Your task to perform on an android device: Open calendar and show me the second week of next month Image 0: 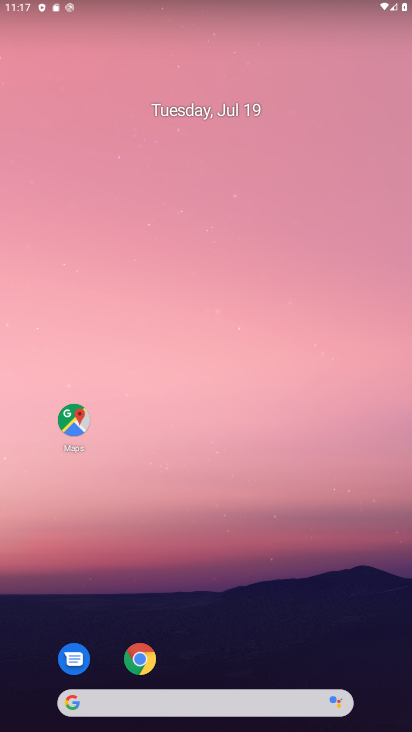
Step 0: press home button
Your task to perform on an android device: Open calendar and show me the second week of next month Image 1: 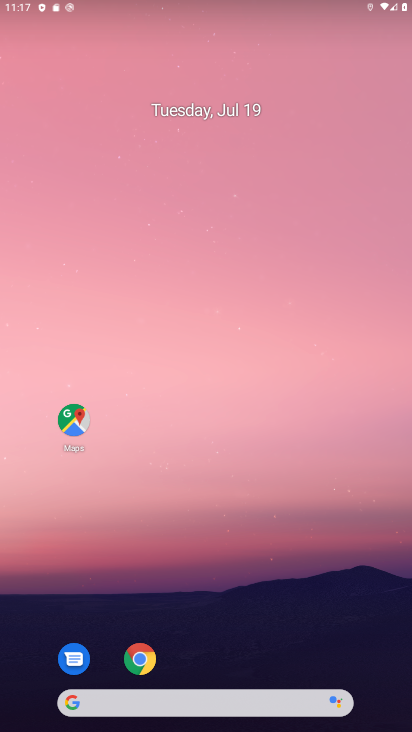
Step 1: press home button
Your task to perform on an android device: Open calendar and show me the second week of next month Image 2: 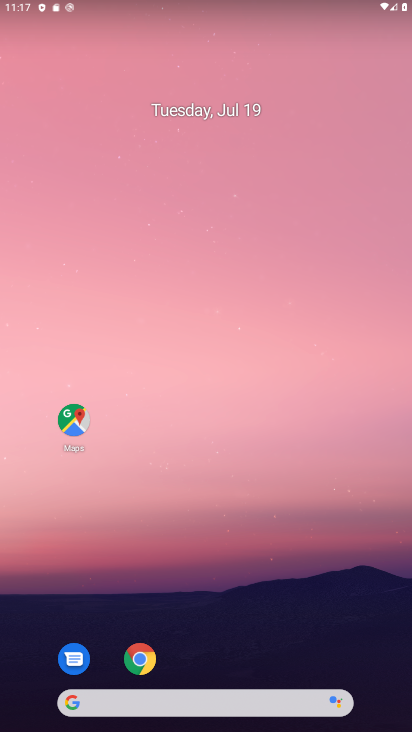
Step 2: drag from (209, 676) to (210, 13)
Your task to perform on an android device: Open calendar and show me the second week of next month Image 3: 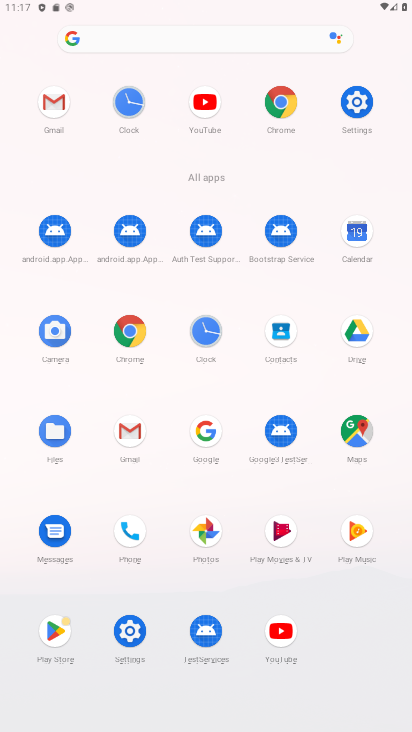
Step 3: click (357, 229)
Your task to perform on an android device: Open calendar and show me the second week of next month Image 4: 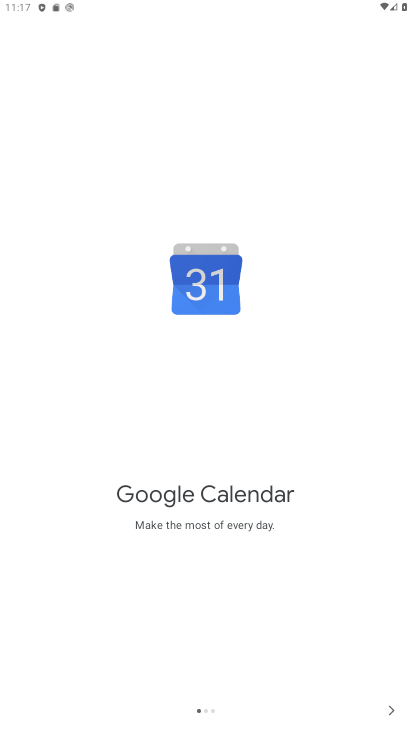
Step 4: click (391, 708)
Your task to perform on an android device: Open calendar and show me the second week of next month Image 5: 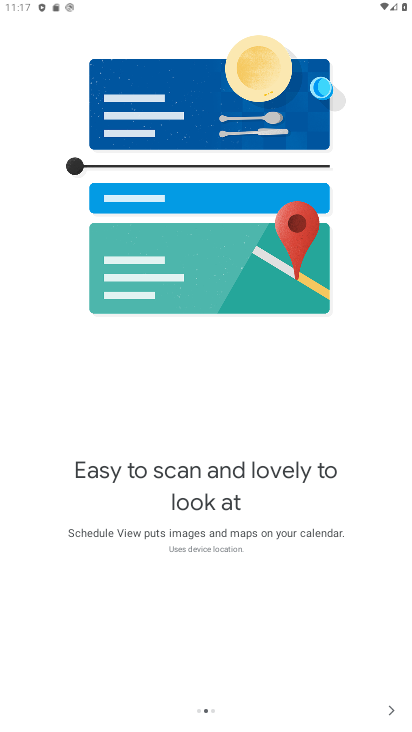
Step 5: click (391, 708)
Your task to perform on an android device: Open calendar and show me the second week of next month Image 6: 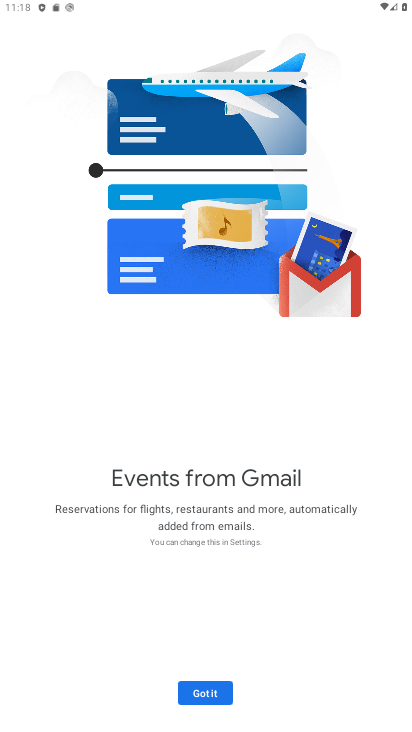
Step 6: click (205, 694)
Your task to perform on an android device: Open calendar and show me the second week of next month Image 7: 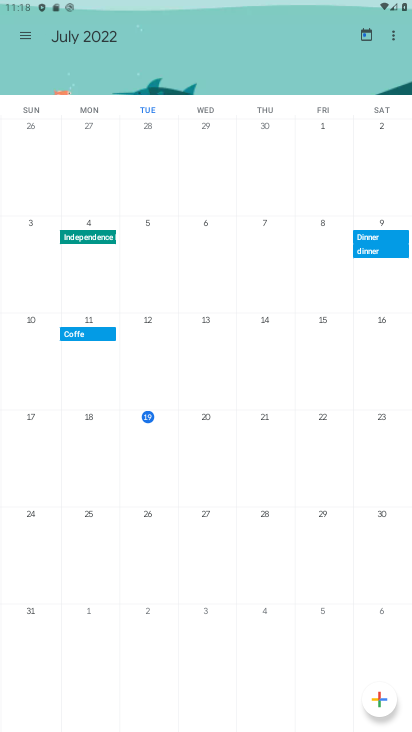
Step 7: click (26, 31)
Your task to perform on an android device: Open calendar and show me the second week of next month Image 8: 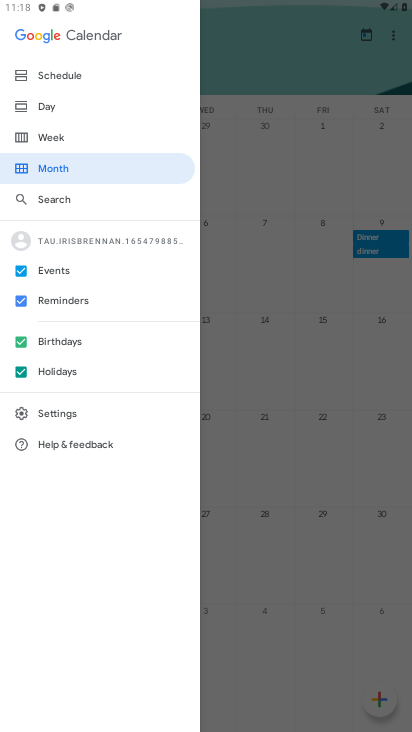
Step 8: click (62, 132)
Your task to perform on an android device: Open calendar and show me the second week of next month Image 9: 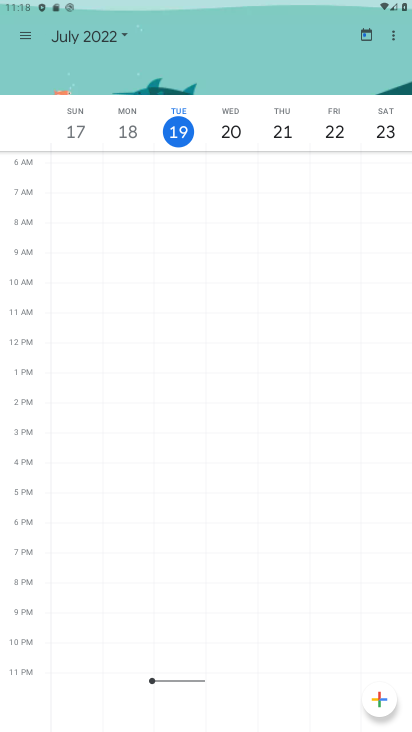
Step 9: drag from (382, 132) to (86, 133)
Your task to perform on an android device: Open calendar and show me the second week of next month Image 10: 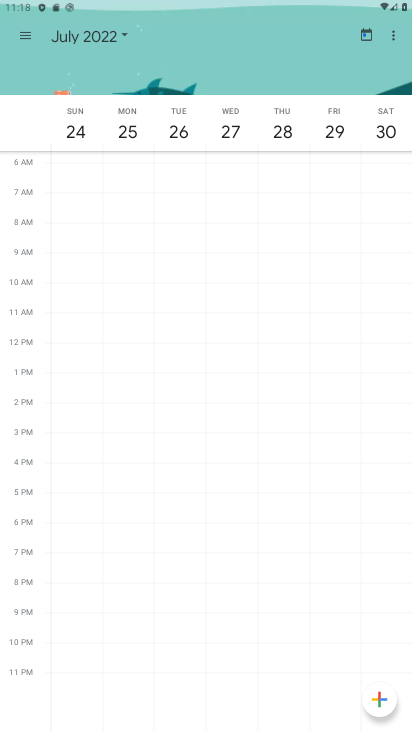
Step 10: drag from (384, 131) to (25, 108)
Your task to perform on an android device: Open calendar and show me the second week of next month Image 11: 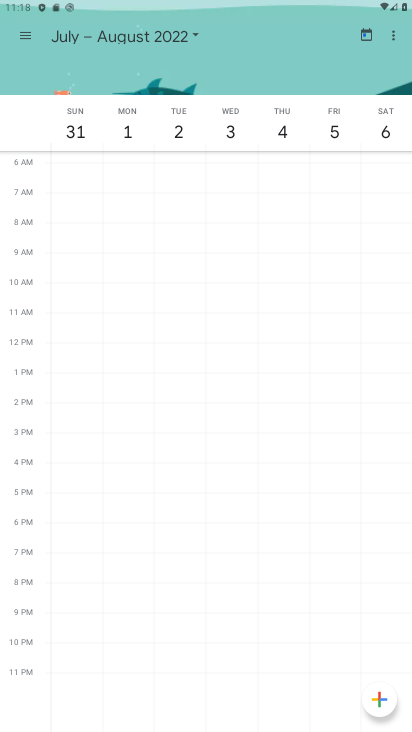
Step 11: drag from (377, 129) to (66, 132)
Your task to perform on an android device: Open calendar and show me the second week of next month Image 12: 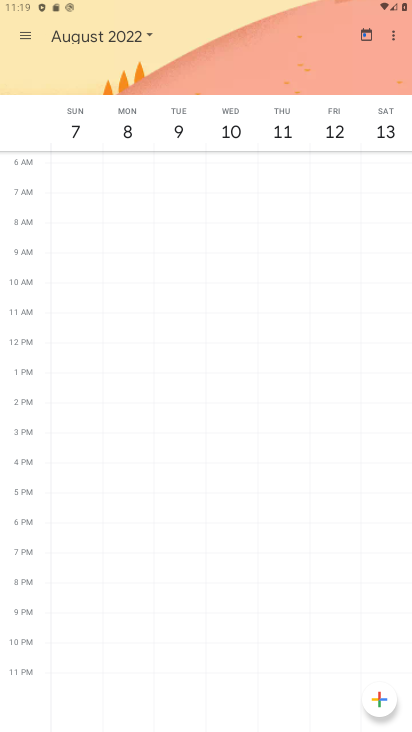
Step 12: click (69, 128)
Your task to perform on an android device: Open calendar and show me the second week of next month Image 13: 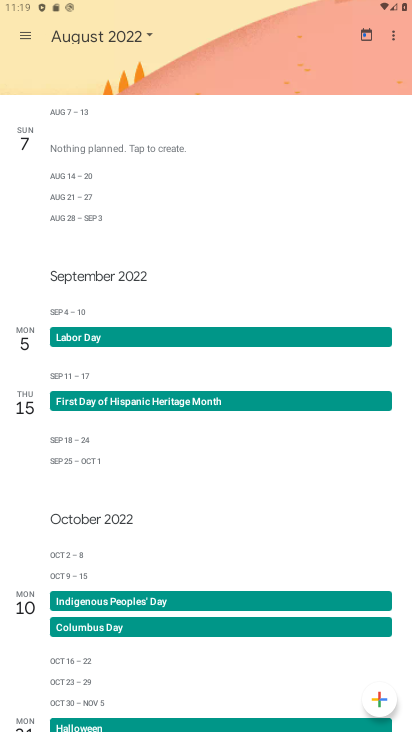
Step 13: task complete